Your task to perform on an android device: Go to network settings Image 0: 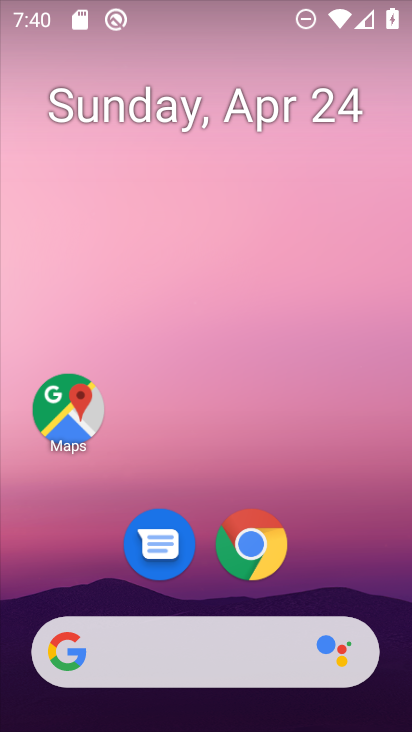
Step 0: drag from (175, 627) to (383, 68)
Your task to perform on an android device: Go to network settings Image 1: 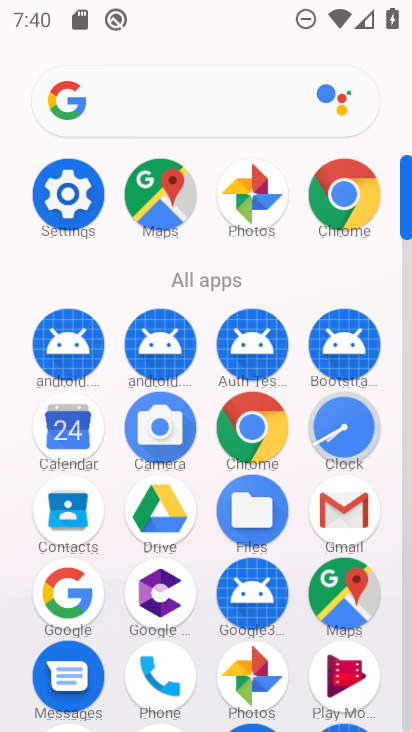
Step 1: click (66, 202)
Your task to perform on an android device: Go to network settings Image 2: 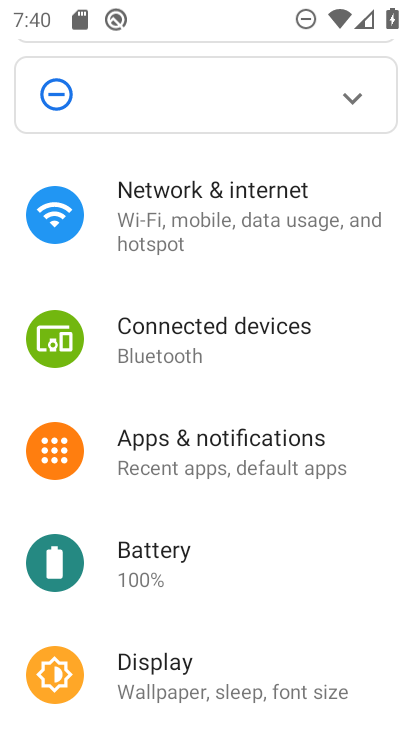
Step 2: click (232, 193)
Your task to perform on an android device: Go to network settings Image 3: 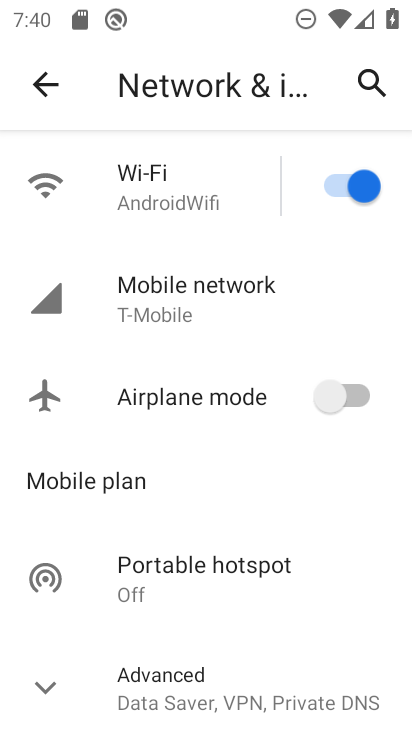
Step 3: task complete